Your task to perform on an android device: Go to accessibility settings Image 0: 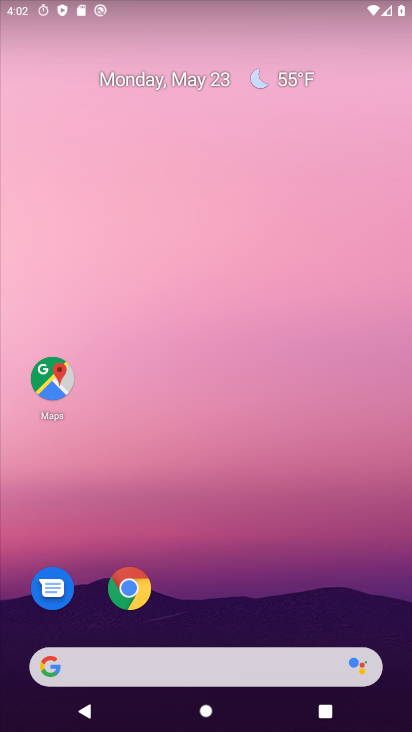
Step 0: drag from (219, 549) to (249, 108)
Your task to perform on an android device: Go to accessibility settings Image 1: 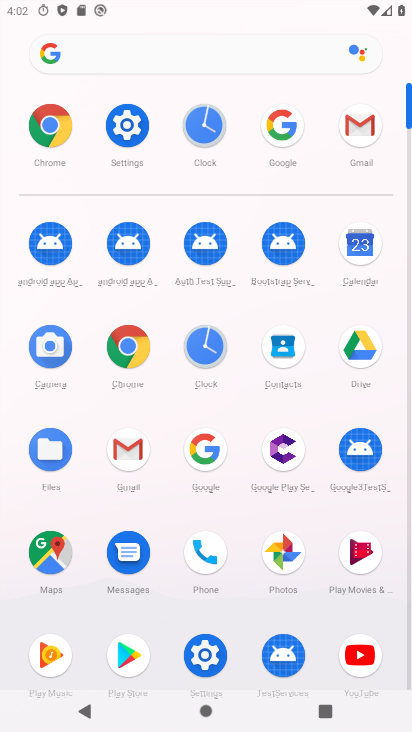
Step 1: click (133, 121)
Your task to perform on an android device: Go to accessibility settings Image 2: 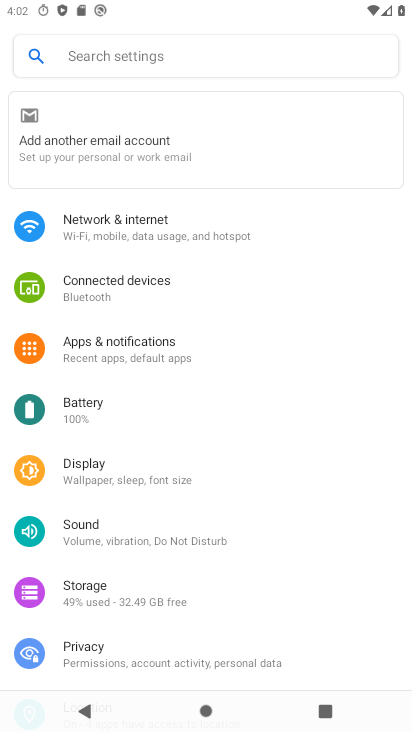
Step 2: drag from (285, 619) to (339, 80)
Your task to perform on an android device: Go to accessibility settings Image 3: 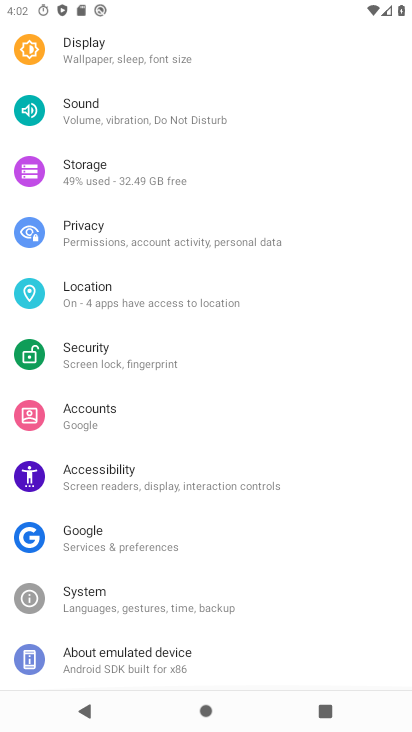
Step 3: drag from (320, 591) to (265, 229)
Your task to perform on an android device: Go to accessibility settings Image 4: 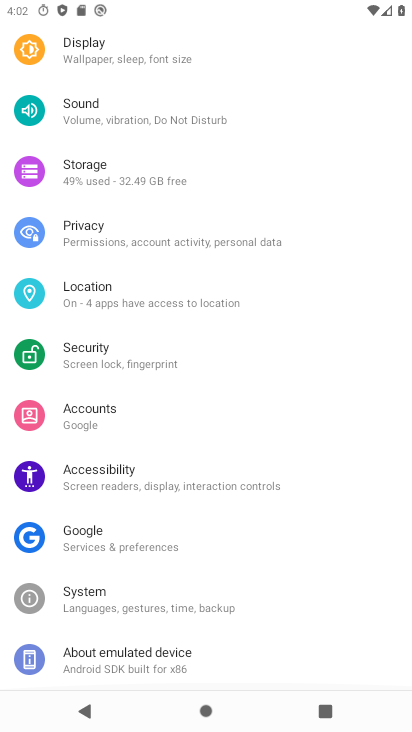
Step 4: click (130, 473)
Your task to perform on an android device: Go to accessibility settings Image 5: 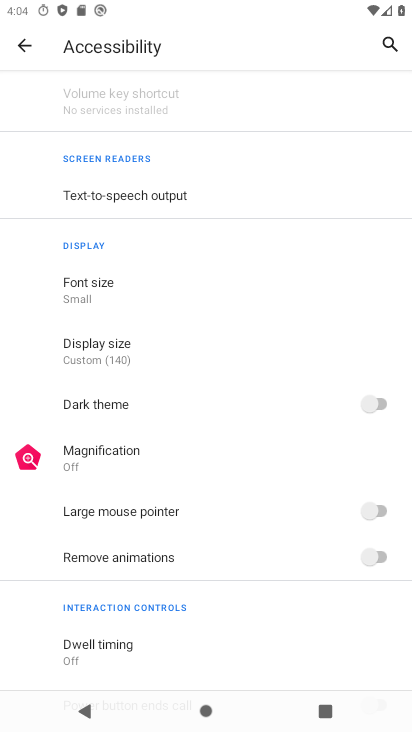
Step 5: task complete